Your task to perform on an android device: Open network settings Image 0: 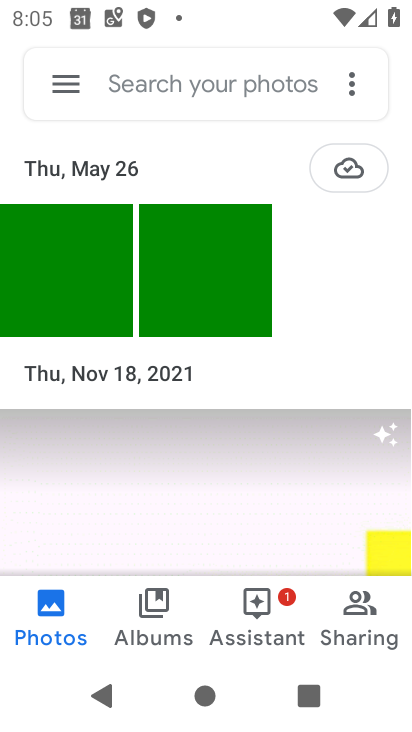
Step 0: press home button
Your task to perform on an android device: Open network settings Image 1: 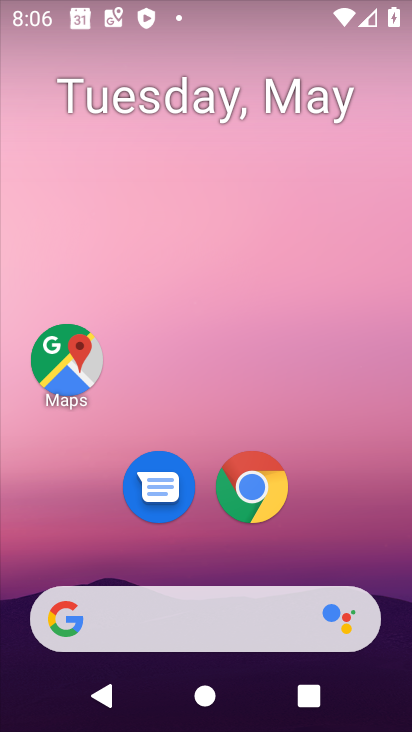
Step 1: drag from (383, 531) to (389, 181)
Your task to perform on an android device: Open network settings Image 2: 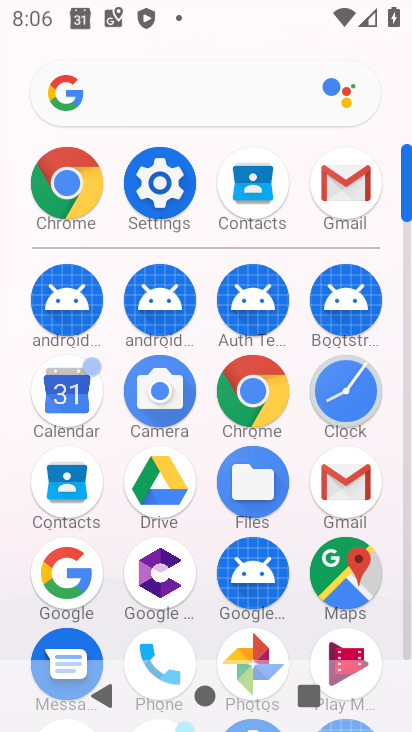
Step 2: click (173, 203)
Your task to perform on an android device: Open network settings Image 3: 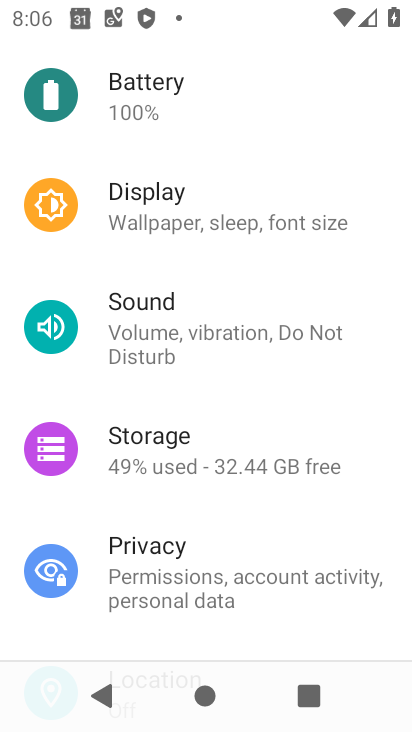
Step 3: drag from (380, 617) to (385, 490)
Your task to perform on an android device: Open network settings Image 4: 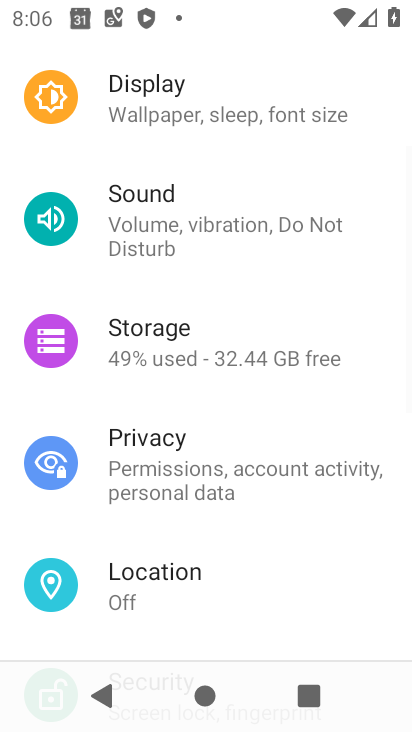
Step 4: drag from (373, 592) to (377, 443)
Your task to perform on an android device: Open network settings Image 5: 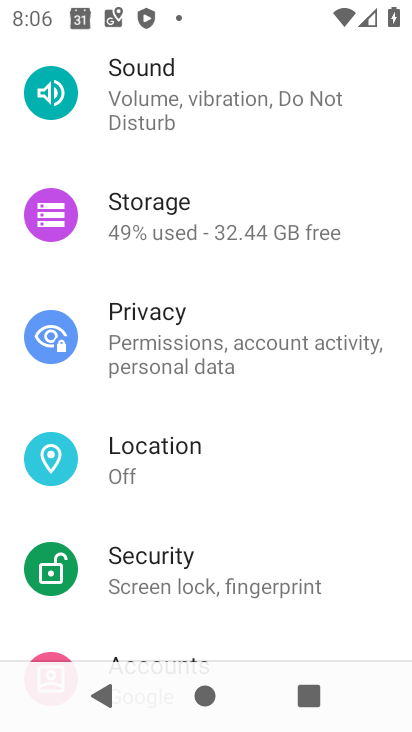
Step 5: drag from (369, 587) to (370, 435)
Your task to perform on an android device: Open network settings Image 6: 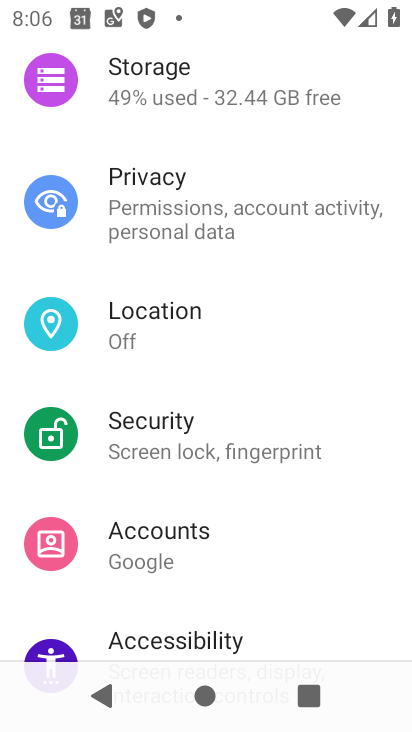
Step 6: drag from (364, 591) to (368, 452)
Your task to perform on an android device: Open network settings Image 7: 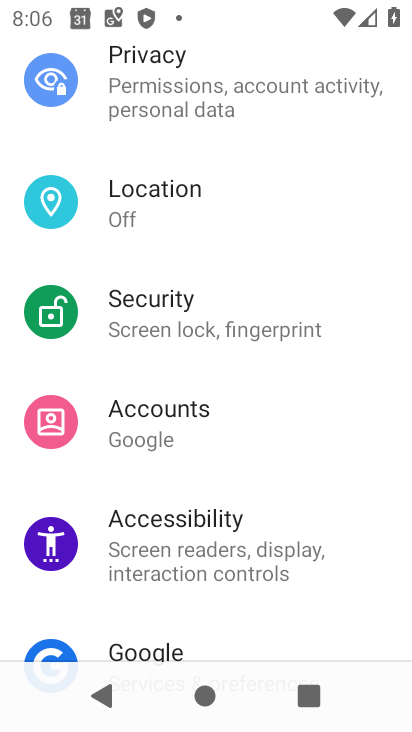
Step 7: drag from (357, 374) to (366, 469)
Your task to perform on an android device: Open network settings Image 8: 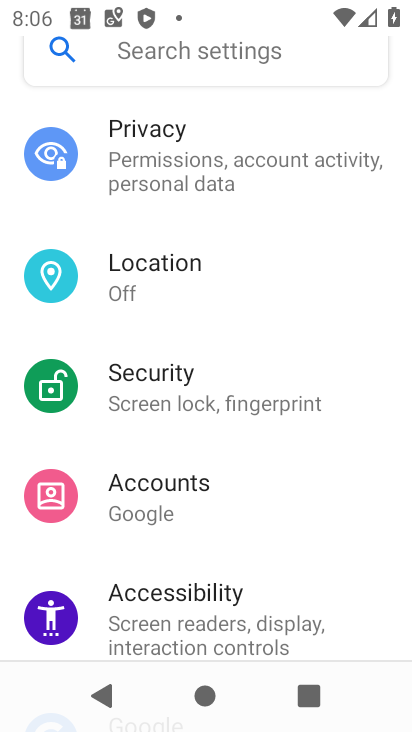
Step 8: drag from (367, 335) to (367, 410)
Your task to perform on an android device: Open network settings Image 9: 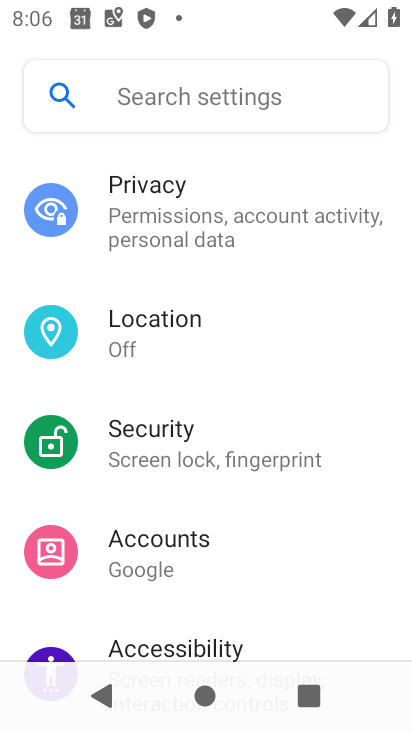
Step 9: drag from (383, 329) to (385, 384)
Your task to perform on an android device: Open network settings Image 10: 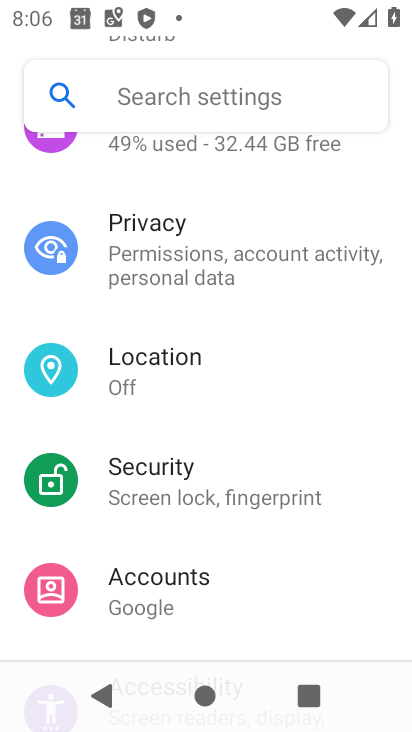
Step 10: drag from (396, 295) to (393, 368)
Your task to perform on an android device: Open network settings Image 11: 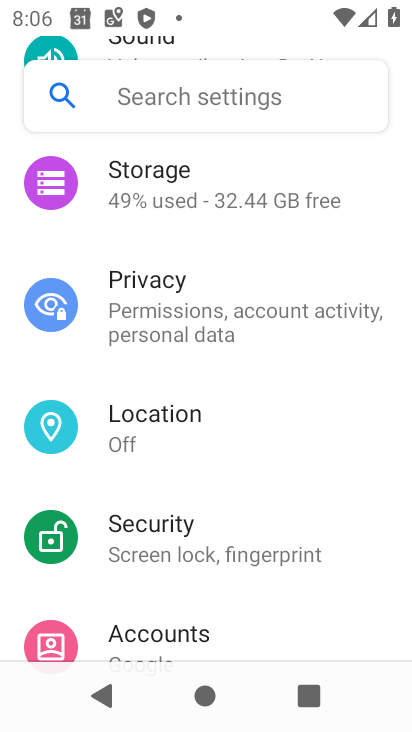
Step 11: drag from (394, 318) to (384, 384)
Your task to perform on an android device: Open network settings Image 12: 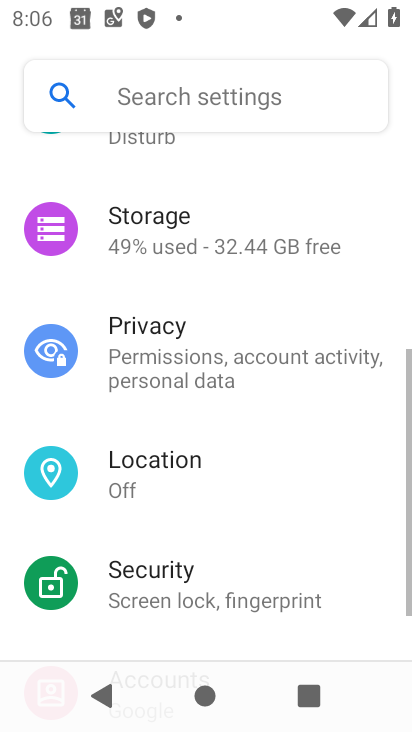
Step 12: drag from (383, 274) to (370, 360)
Your task to perform on an android device: Open network settings Image 13: 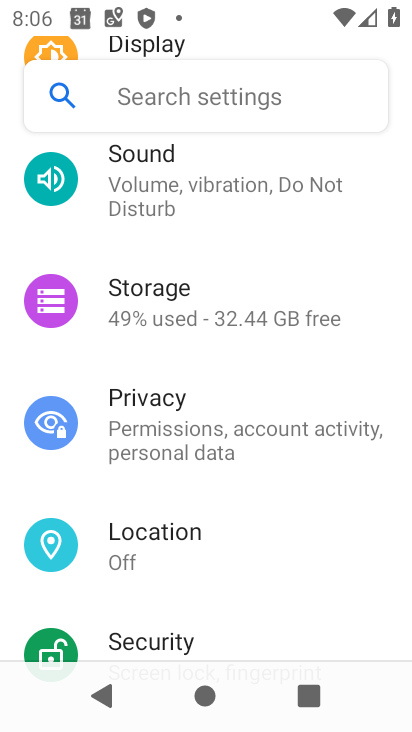
Step 13: drag from (368, 283) to (358, 356)
Your task to perform on an android device: Open network settings Image 14: 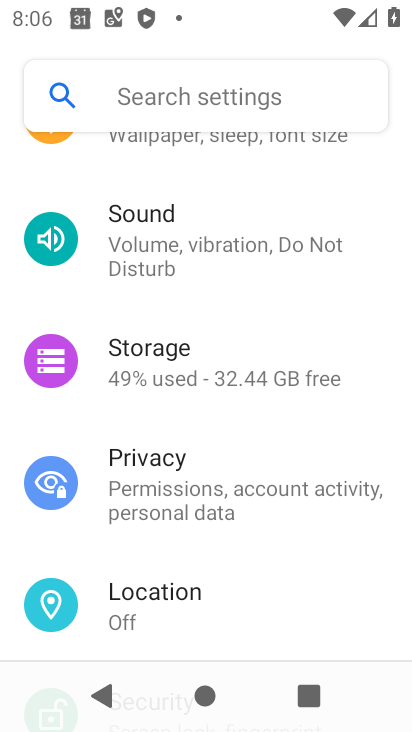
Step 14: drag from (373, 243) to (358, 386)
Your task to perform on an android device: Open network settings Image 15: 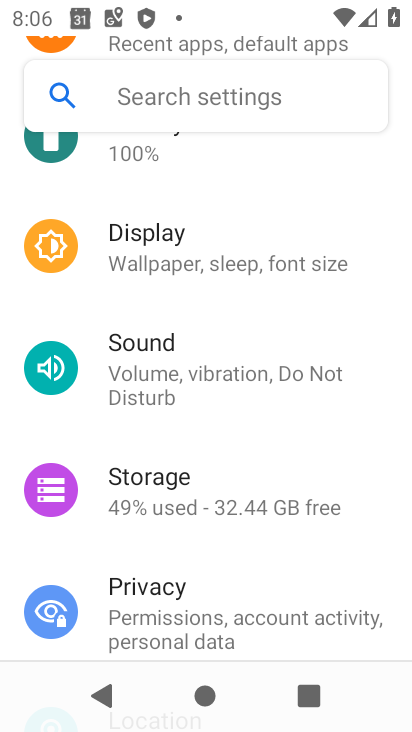
Step 15: drag from (358, 228) to (342, 321)
Your task to perform on an android device: Open network settings Image 16: 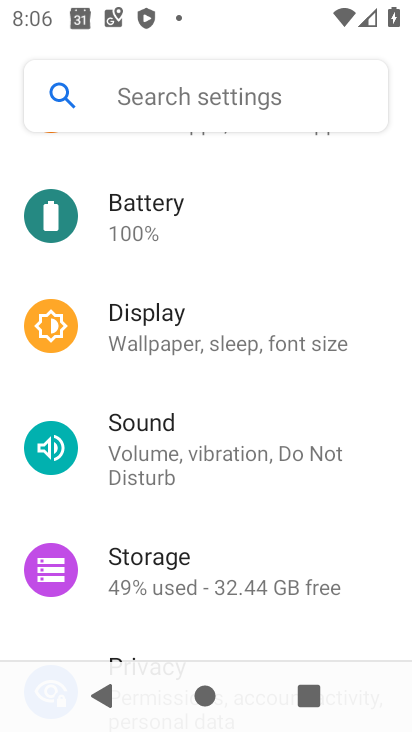
Step 16: drag from (345, 231) to (348, 448)
Your task to perform on an android device: Open network settings Image 17: 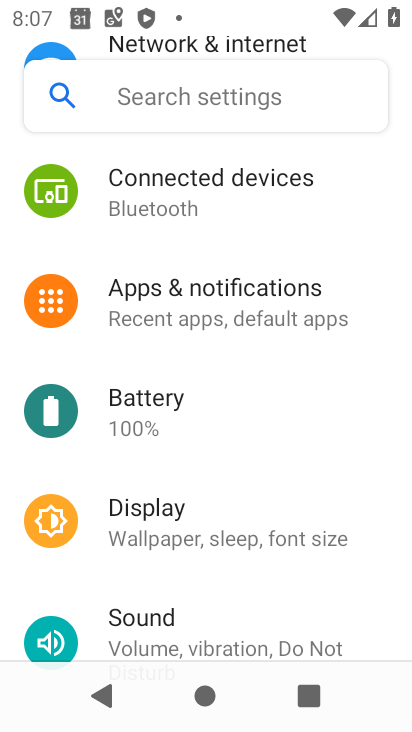
Step 17: drag from (358, 197) to (359, 343)
Your task to perform on an android device: Open network settings Image 18: 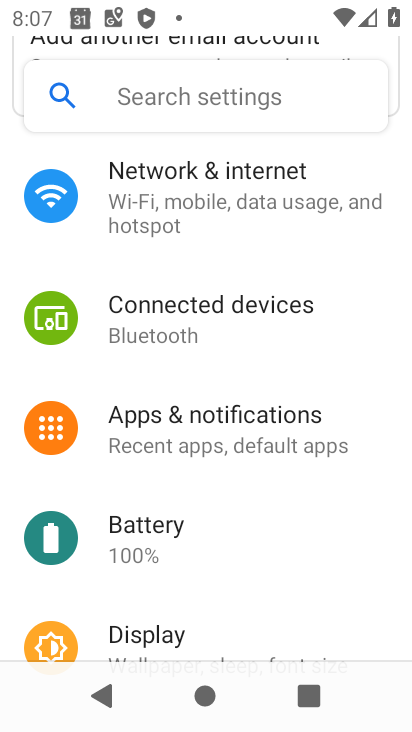
Step 18: click (327, 195)
Your task to perform on an android device: Open network settings Image 19: 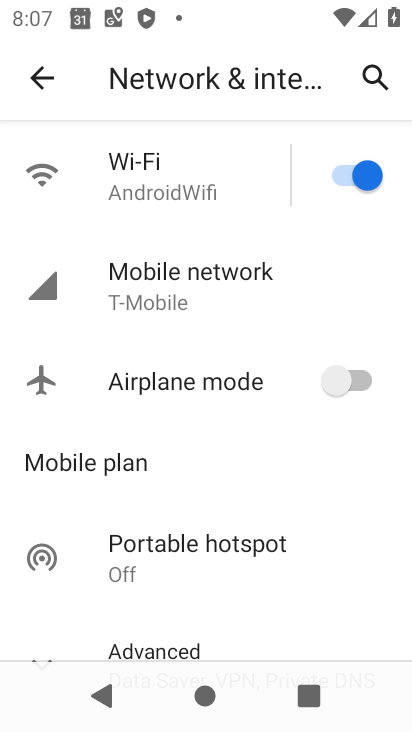
Step 19: task complete